Your task to perform on an android device: check android version Image 0: 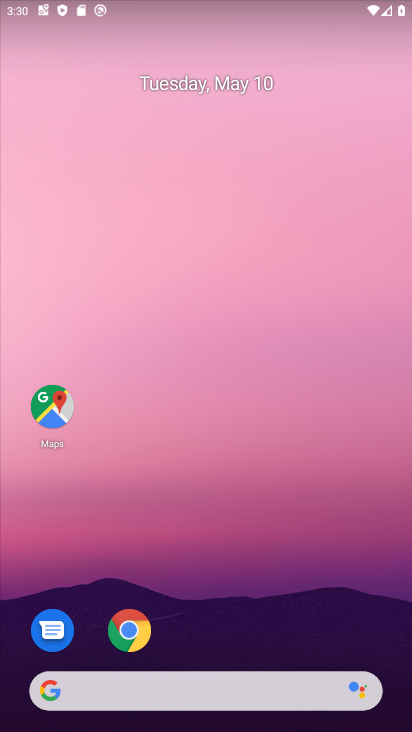
Step 0: drag from (196, 655) to (208, 28)
Your task to perform on an android device: check android version Image 1: 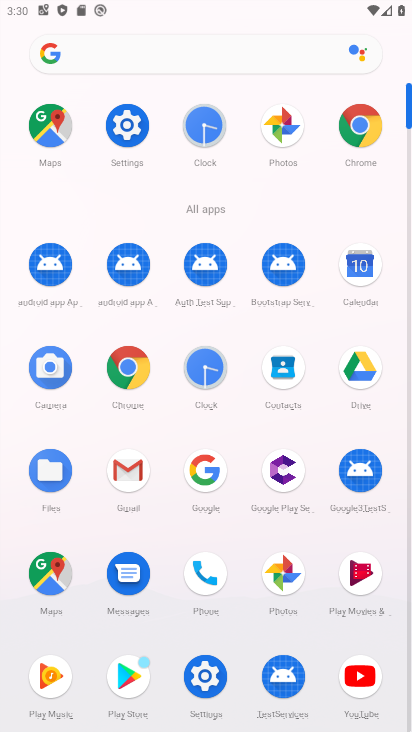
Step 1: click (135, 138)
Your task to perform on an android device: check android version Image 2: 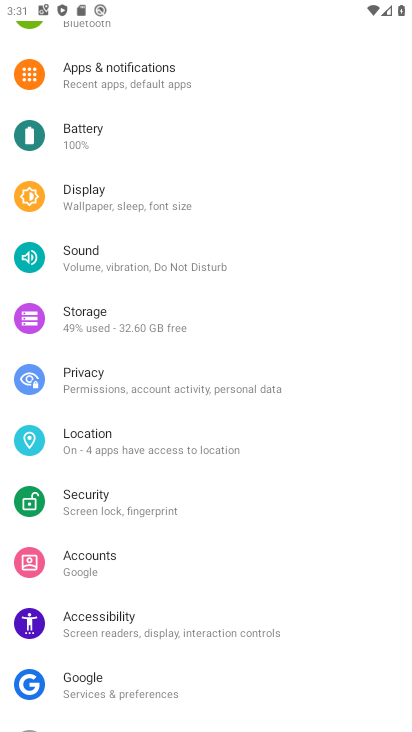
Step 2: drag from (104, 677) to (186, 95)
Your task to perform on an android device: check android version Image 3: 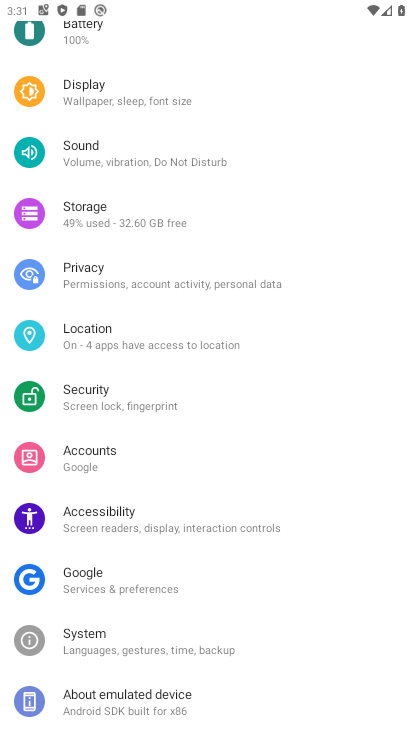
Step 3: click (119, 699)
Your task to perform on an android device: check android version Image 4: 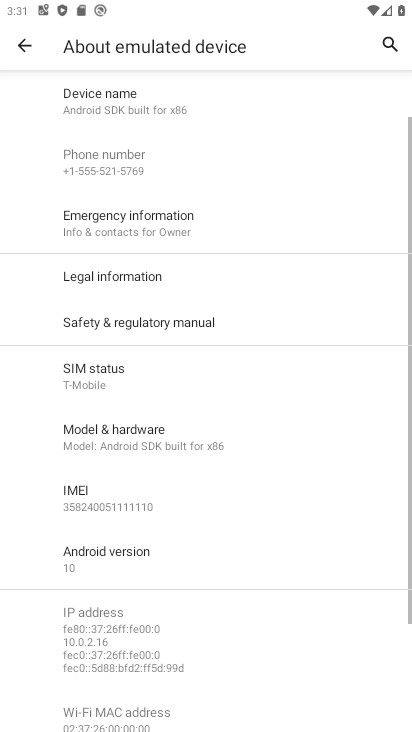
Step 4: click (132, 553)
Your task to perform on an android device: check android version Image 5: 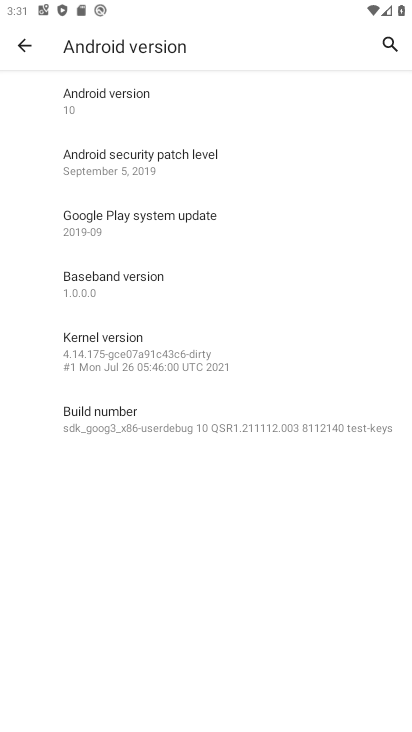
Step 5: task complete